Your task to perform on an android device: Go to internet settings Image 0: 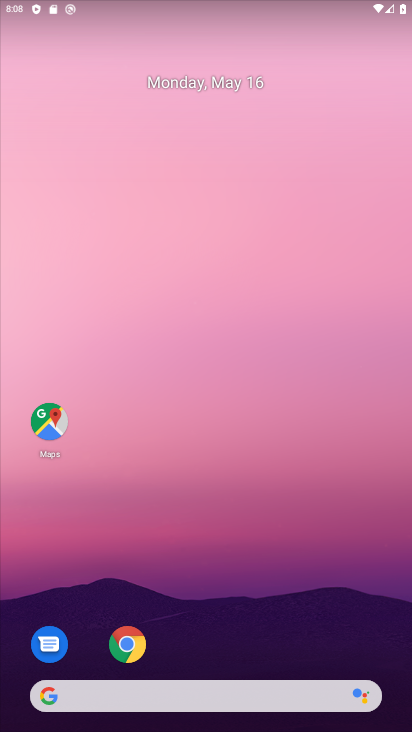
Step 0: drag from (232, 718) to (283, 0)
Your task to perform on an android device: Go to internet settings Image 1: 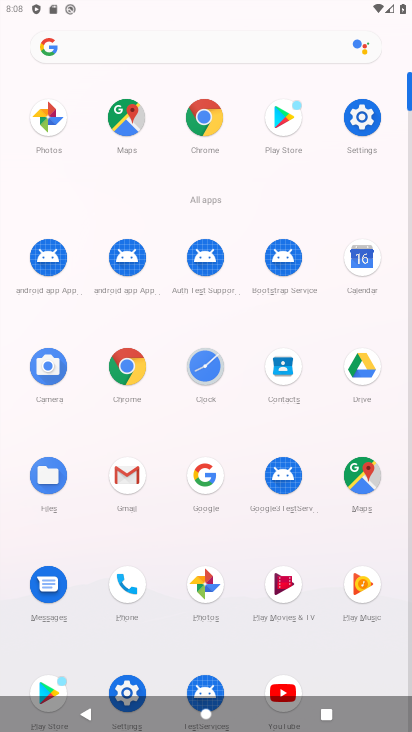
Step 1: click (356, 113)
Your task to perform on an android device: Go to internet settings Image 2: 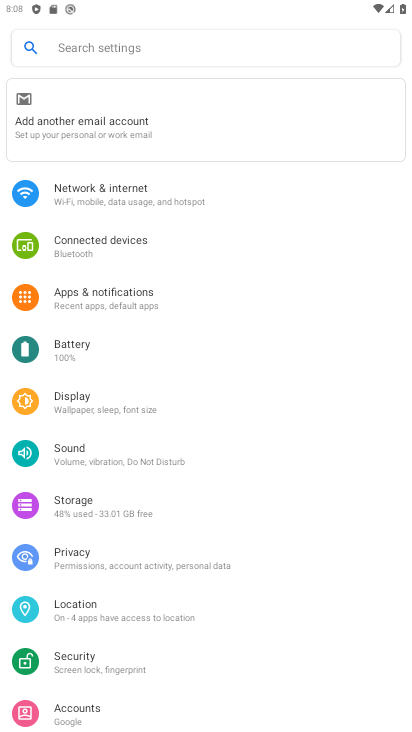
Step 2: click (172, 197)
Your task to perform on an android device: Go to internet settings Image 3: 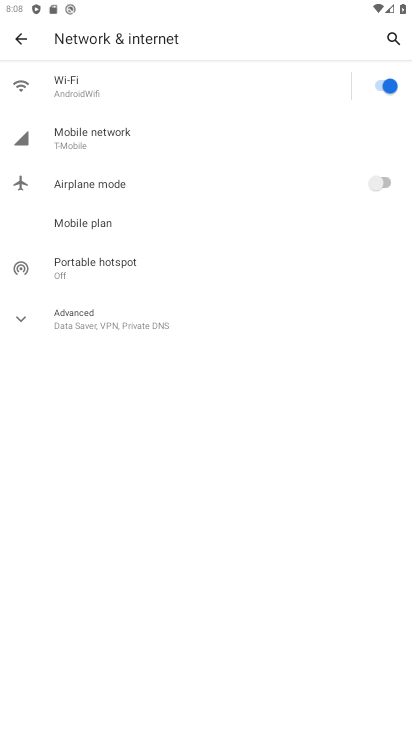
Step 3: task complete